Your task to perform on an android device: change text size in settings app Image 0: 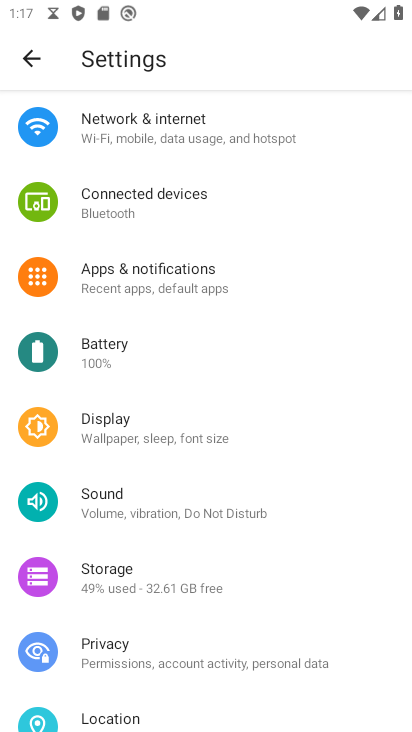
Step 0: click (149, 424)
Your task to perform on an android device: change text size in settings app Image 1: 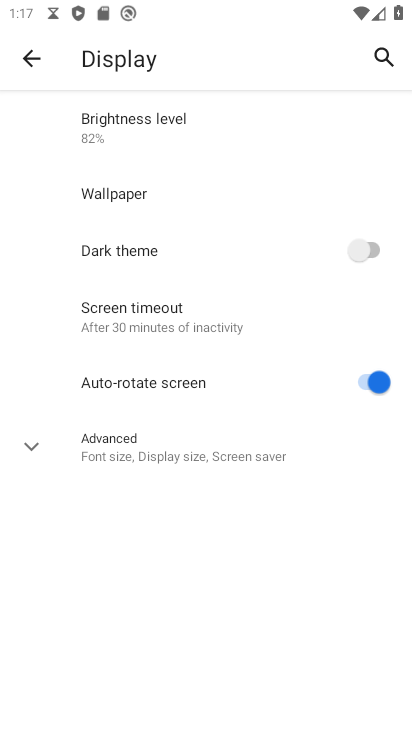
Step 1: click (66, 444)
Your task to perform on an android device: change text size in settings app Image 2: 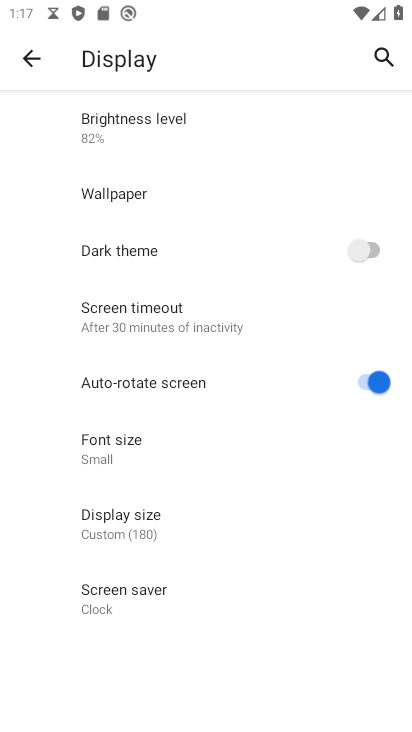
Step 2: click (127, 453)
Your task to perform on an android device: change text size in settings app Image 3: 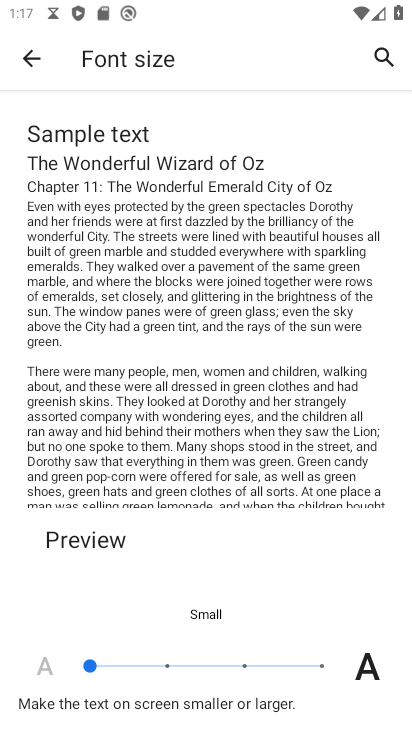
Step 3: click (167, 671)
Your task to perform on an android device: change text size in settings app Image 4: 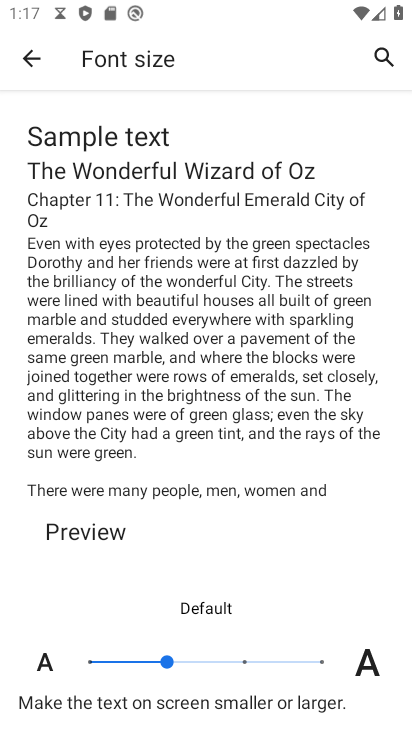
Step 4: task complete